Your task to perform on an android device: Open privacy settings Image 0: 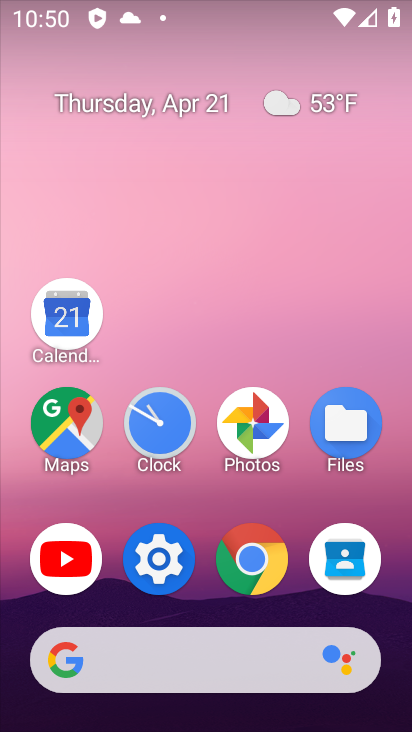
Step 0: click (160, 551)
Your task to perform on an android device: Open privacy settings Image 1: 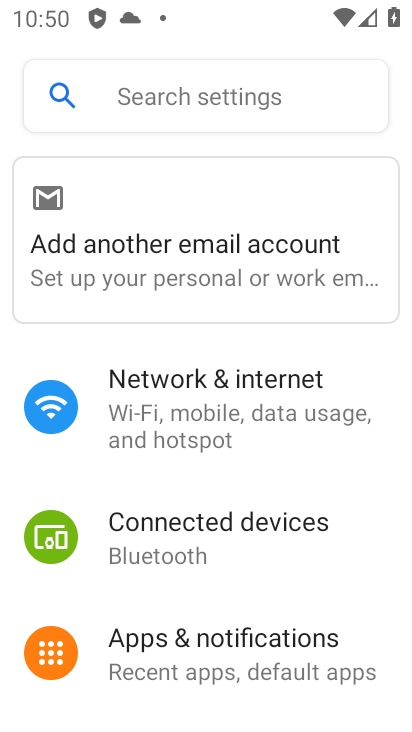
Step 1: drag from (238, 593) to (225, 72)
Your task to perform on an android device: Open privacy settings Image 2: 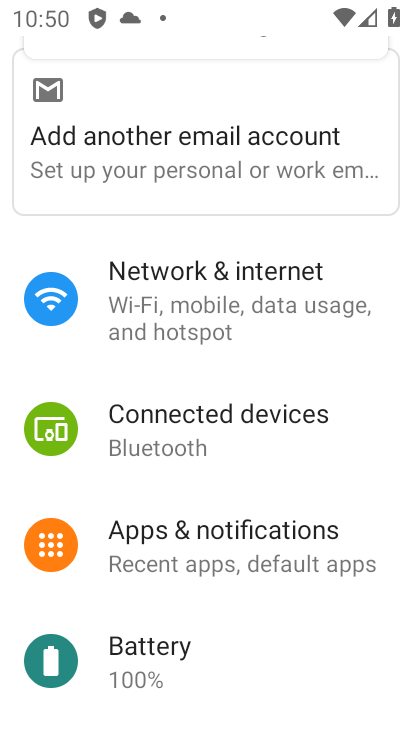
Step 2: drag from (251, 632) to (260, 203)
Your task to perform on an android device: Open privacy settings Image 3: 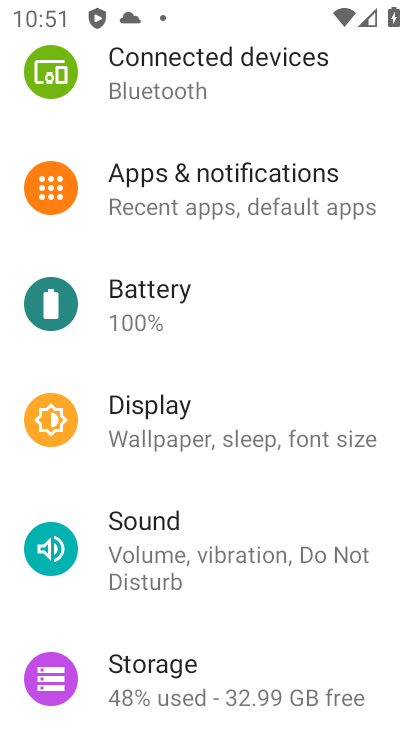
Step 3: drag from (280, 611) to (277, 125)
Your task to perform on an android device: Open privacy settings Image 4: 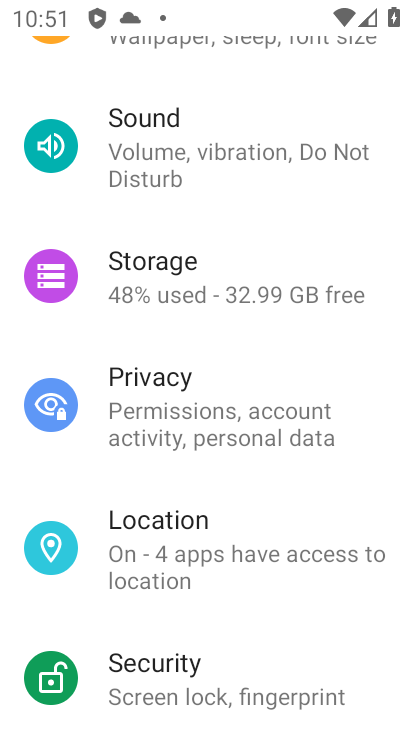
Step 4: drag from (268, 601) to (229, 222)
Your task to perform on an android device: Open privacy settings Image 5: 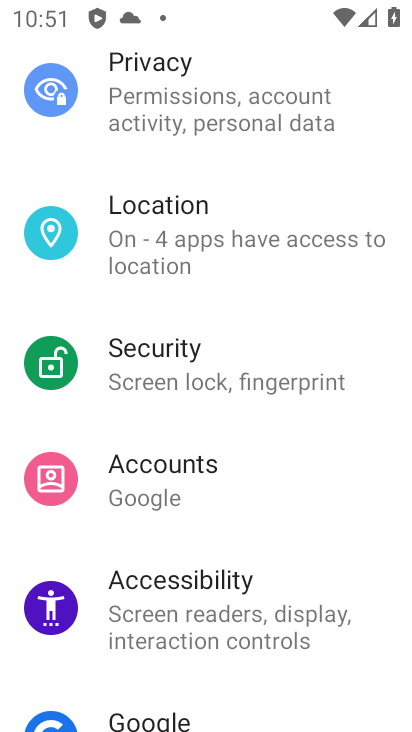
Step 5: click (148, 60)
Your task to perform on an android device: Open privacy settings Image 6: 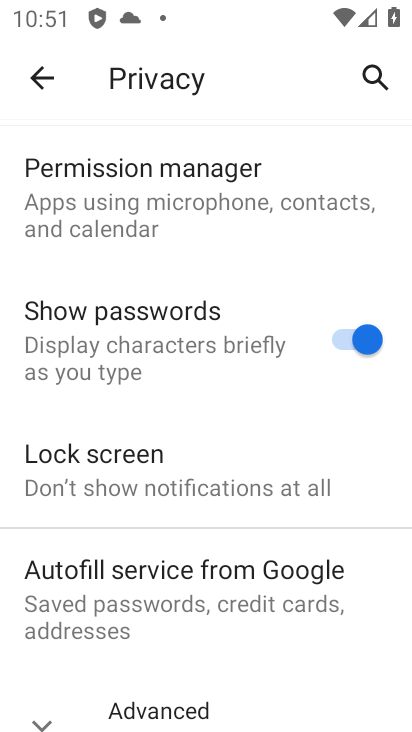
Step 6: task complete